Your task to perform on an android device: add a contact Image 0: 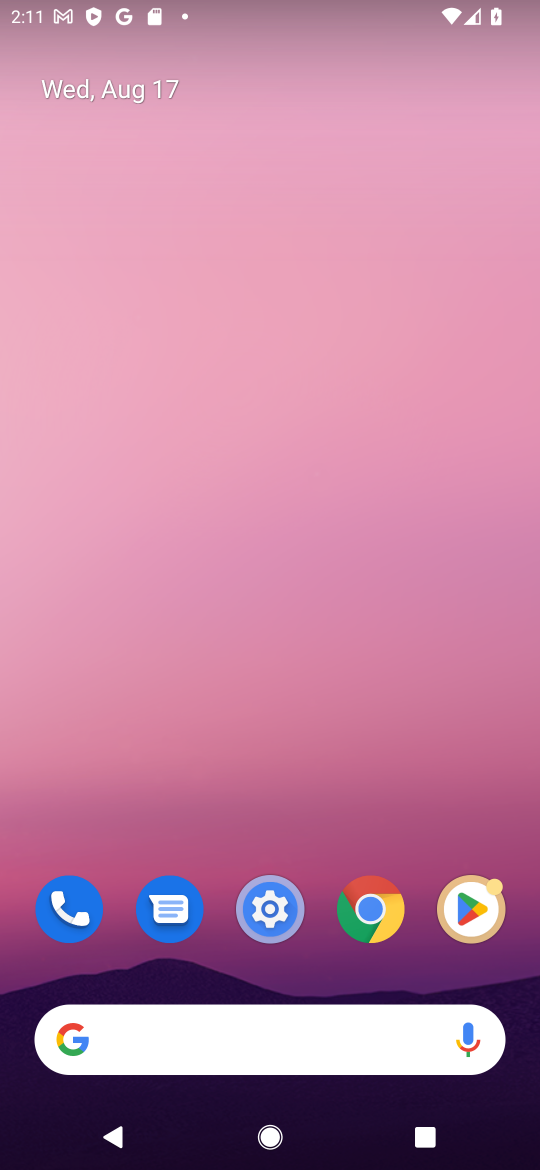
Step 0: drag from (274, 702) to (269, 139)
Your task to perform on an android device: add a contact Image 1: 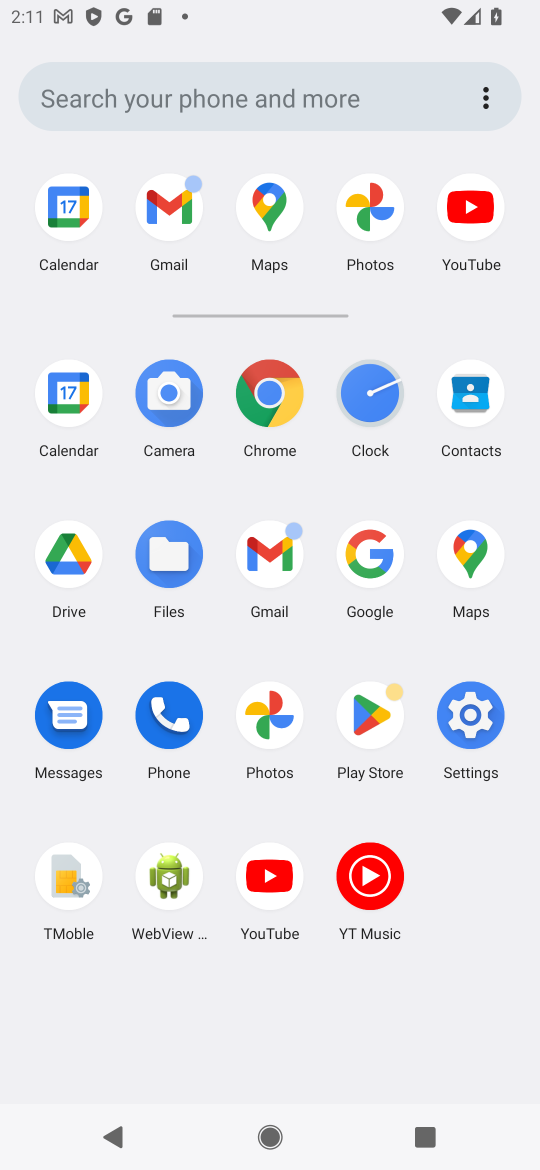
Step 1: click (465, 412)
Your task to perform on an android device: add a contact Image 2: 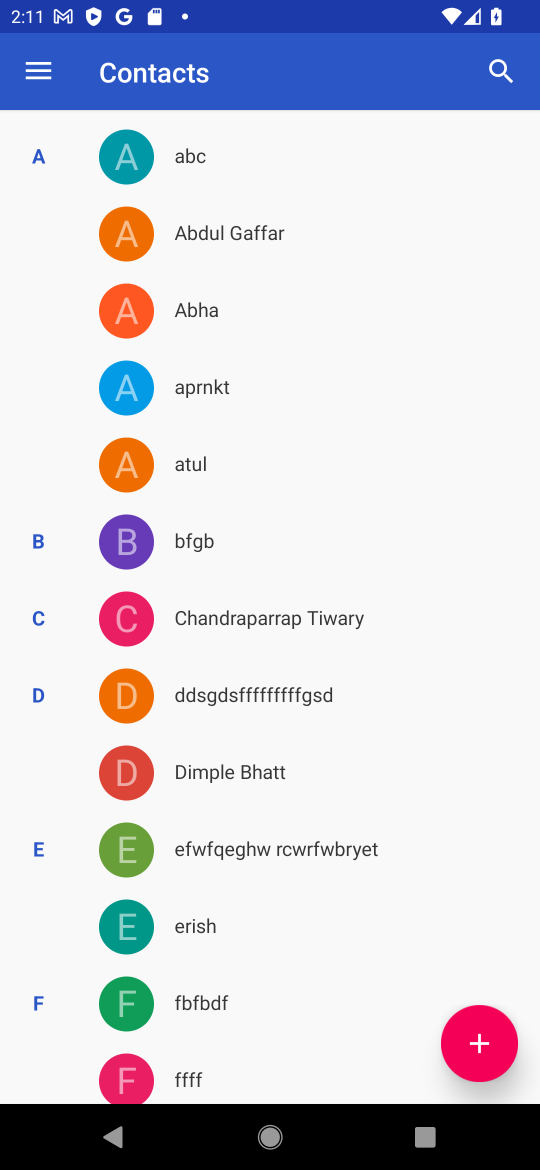
Step 2: task complete